Your task to perform on an android device: Open settings on Google Maps Image 0: 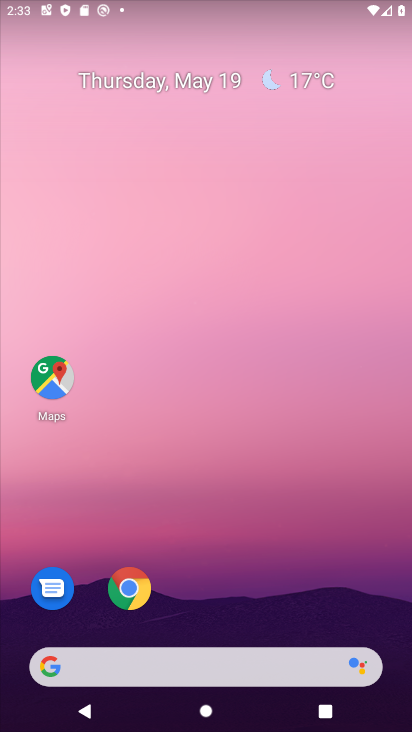
Step 0: click (63, 374)
Your task to perform on an android device: Open settings on Google Maps Image 1: 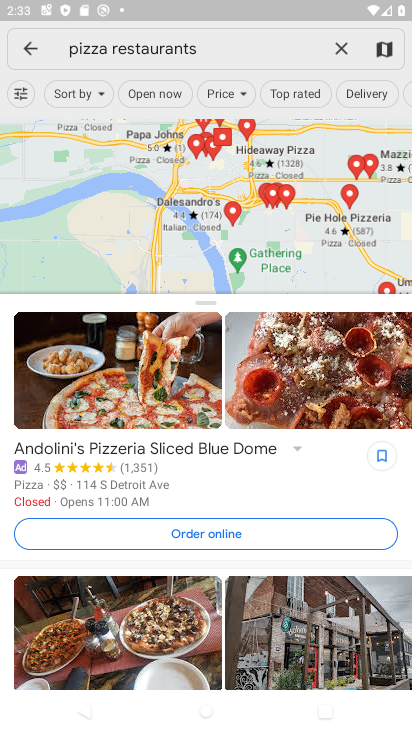
Step 1: click (29, 53)
Your task to perform on an android device: Open settings on Google Maps Image 2: 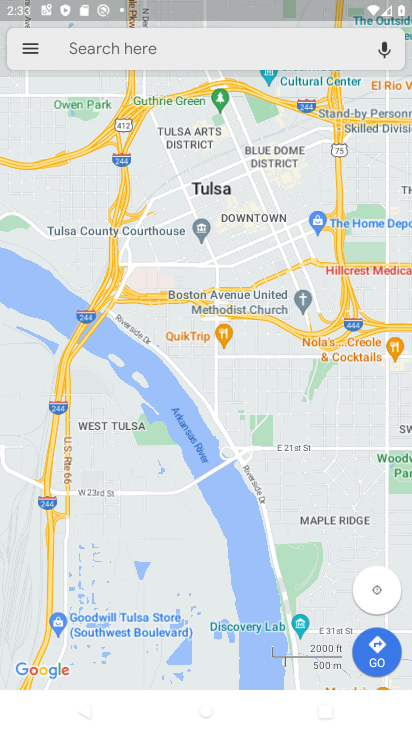
Step 2: click (24, 46)
Your task to perform on an android device: Open settings on Google Maps Image 3: 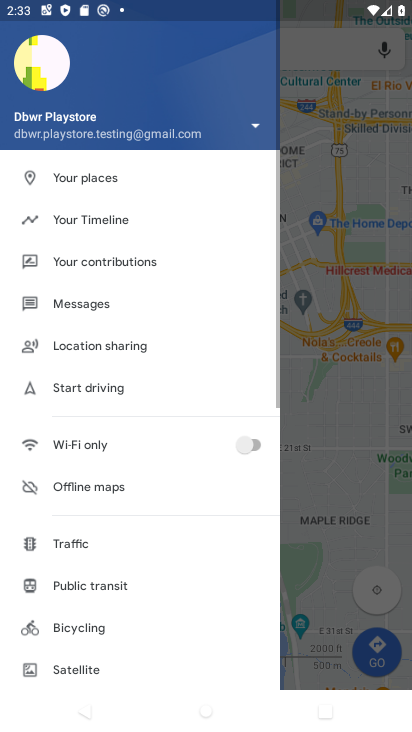
Step 3: drag from (82, 551) to (139, 132)
Your task to perform on an android device: Open settings on Google Maps Image 4: 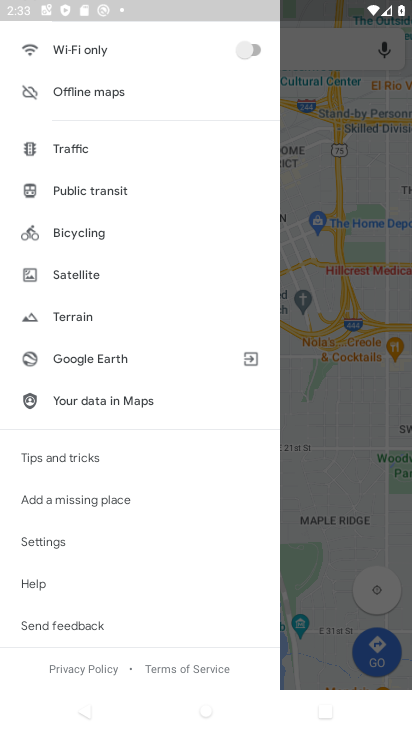
Step 4: click (85, 538)
Your task to perform on an android device: Open settings on Google Maps Image 5: 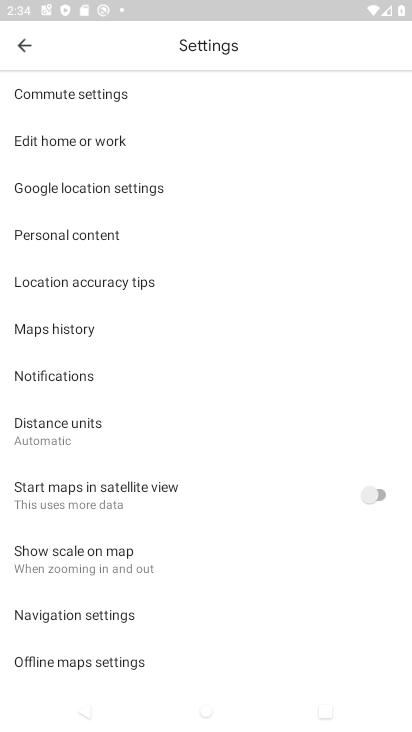
Step 5: task complete